Your task to perform on an android device: change the clock display to analog Image 0: 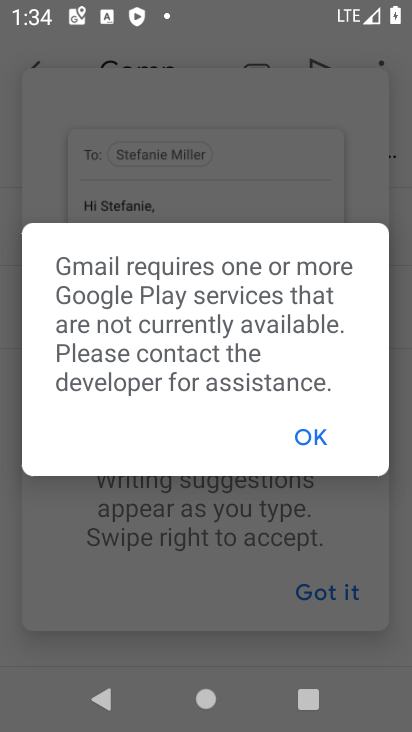
Step 0: press home button
Your task to perform on an android device: change the clock display to analog Image 1: 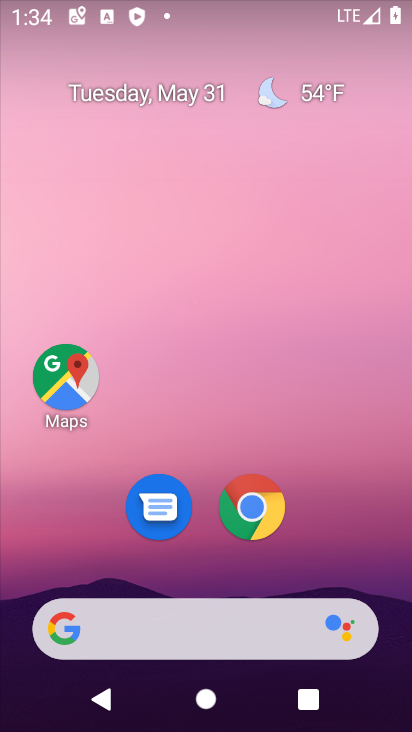
Step 1: drag from (383, 654) to (323, 0)
Your task to perform on an android device: change the clock display to analog Image 2: 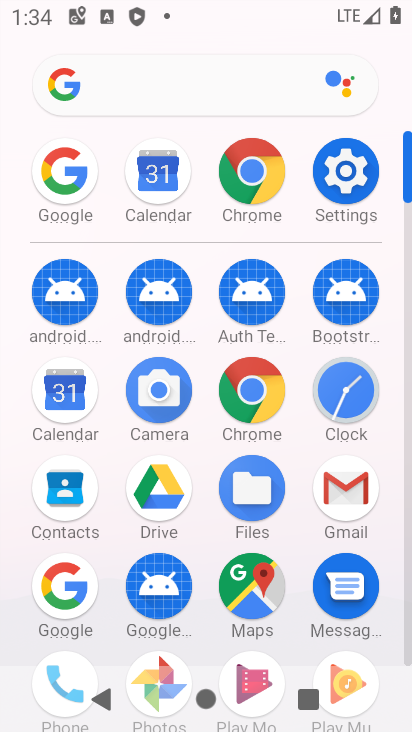
Step 2: click (361, 405)
Your task to perform on an android device: change the clock display to analog Image 3: 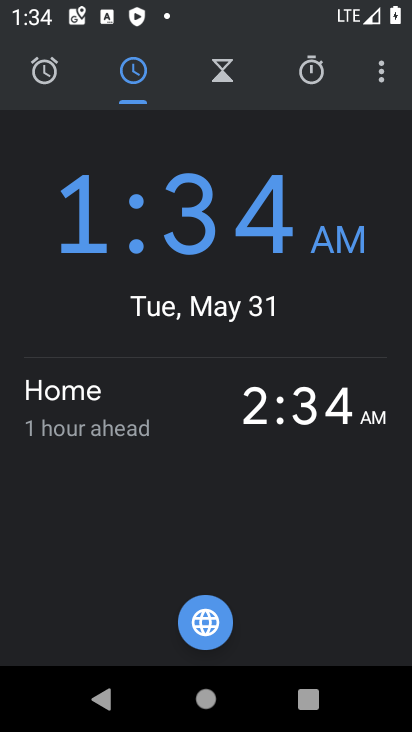
Step 3: click (378, 74)
Your task to perform on an android device: change the clock display to analog Image 4: 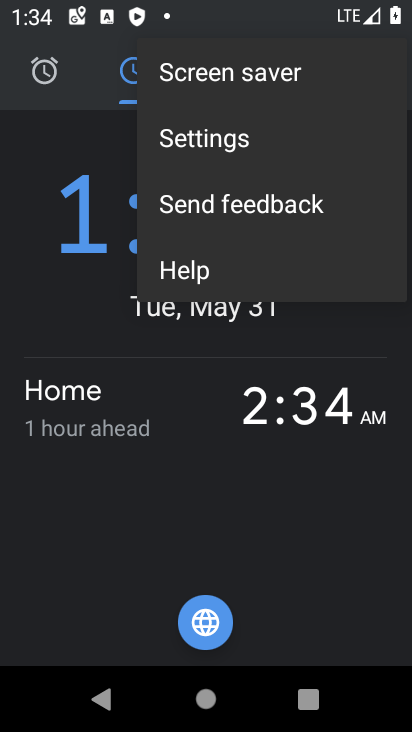
Step 4: click (229, 132)
Your task to perform on an android device: change the clock display to analog Image 5: 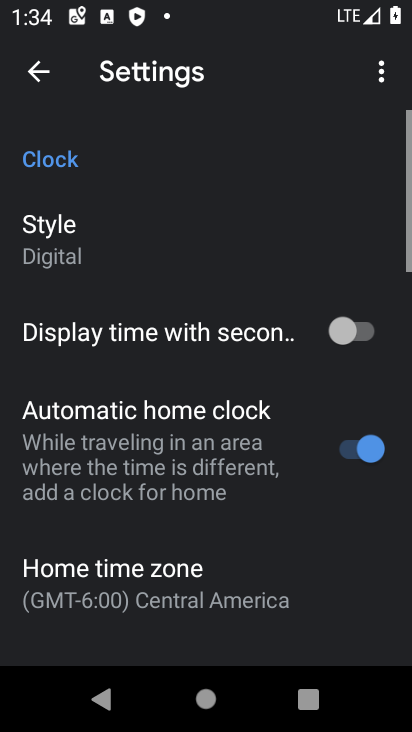
Step 5: click (88, 245)
Your task to perform on an android device: change the clock display to analog Image 6: 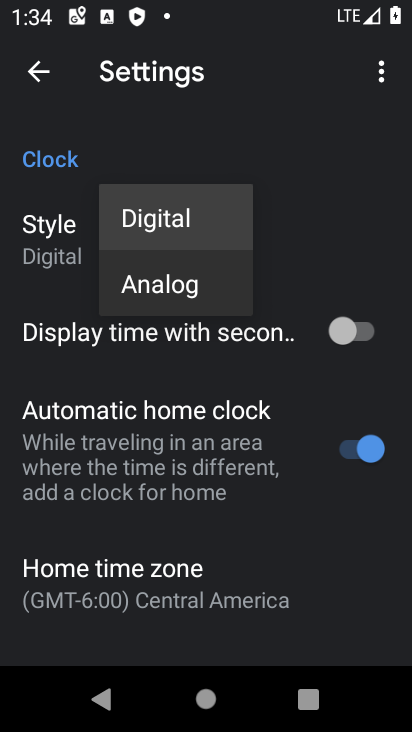
Step 6: click (184, 281)
Your task to perform on an android device: change the clock display to analog Image 7: 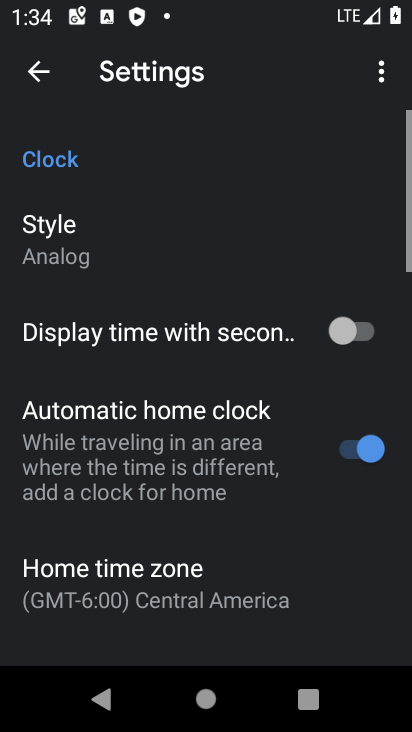
Step 7: task complete